Your task to perform on an android device: set default search engine in the chrome app Image 0: 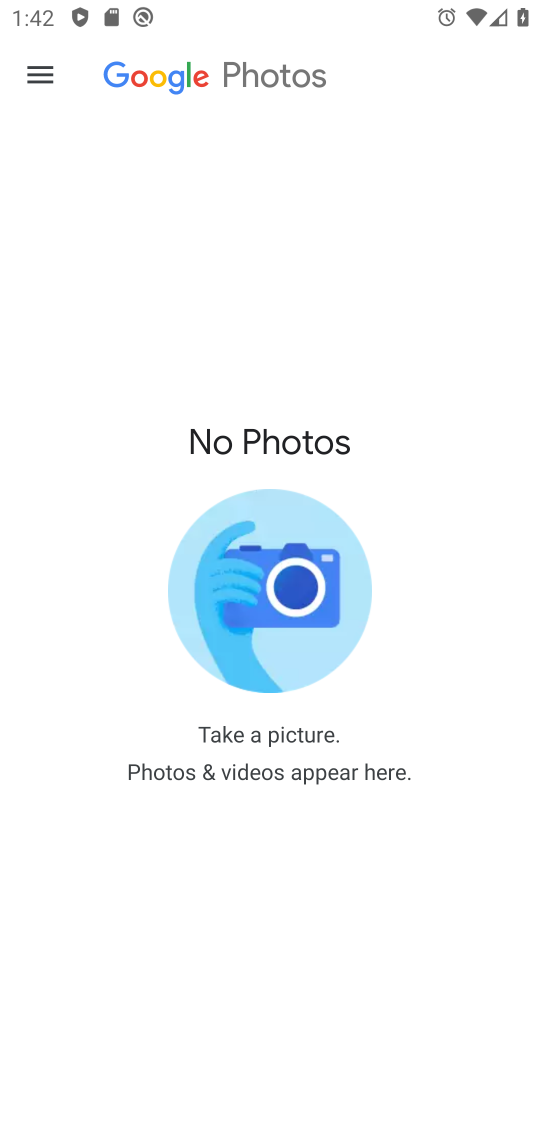
Step 0: drag from (298, 1045) to (344, 338)
Your task to perform on an android device: set default search engine in the chrome app Image 1: 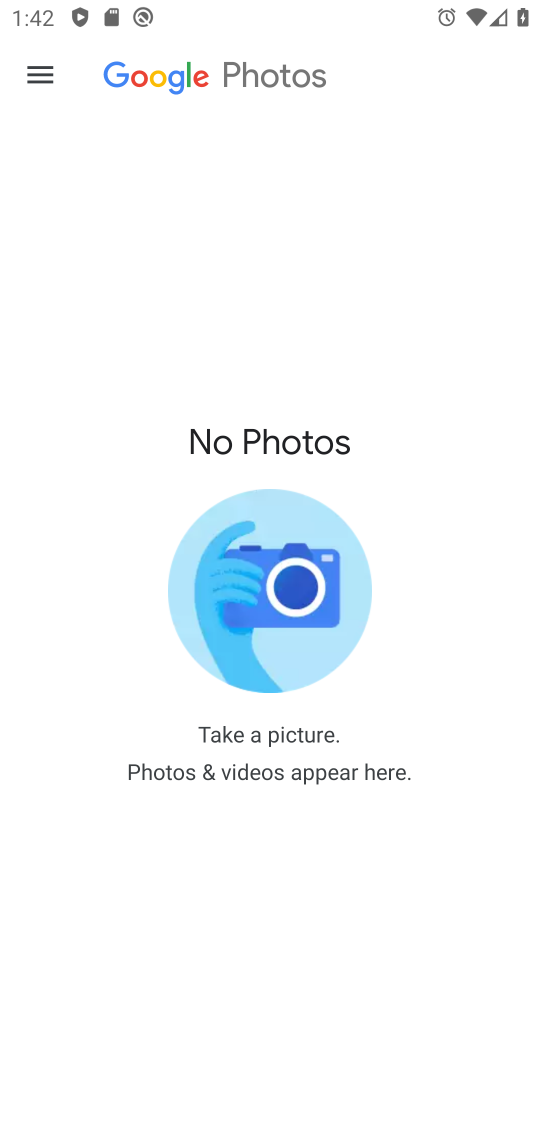
Step 1: drag from (312, 963) to (307, 350)
Your task to perform on an android device: set default search engine in the chrome app Image 2: 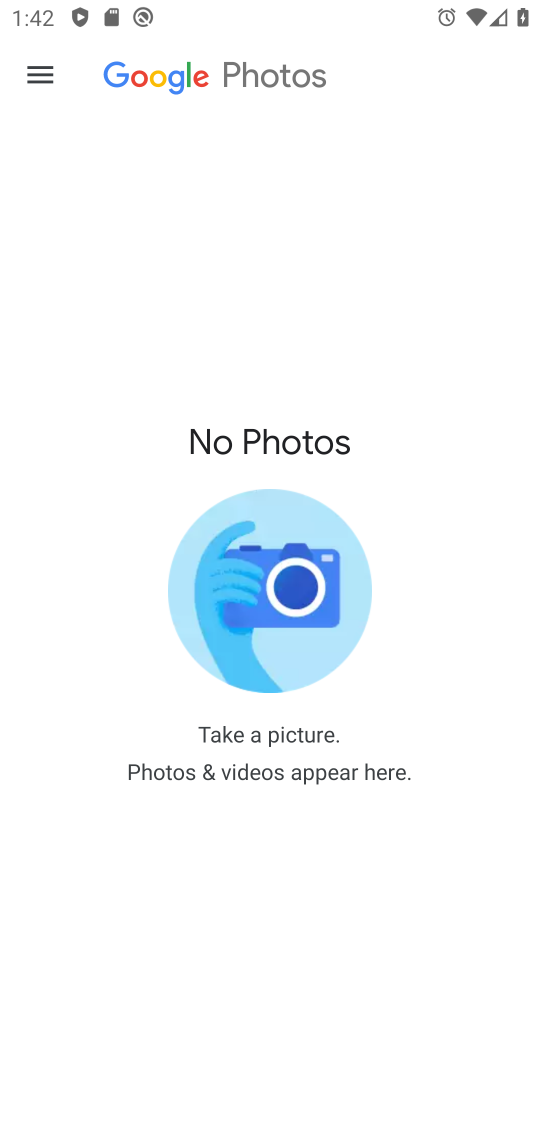
Step 2: press home button
Your task to perform on an android device: set default search engine in the chrome app Image 3: 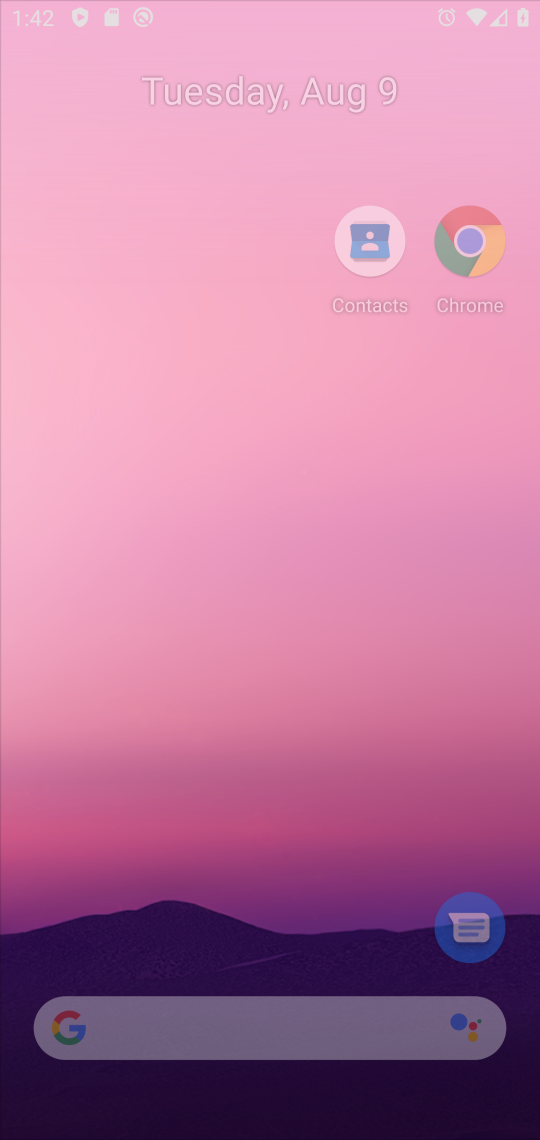
Step 3: drag from (227, 801) to (365, 271)
Your task to perform on an android device: set default search engine in the chrome app Image 4: 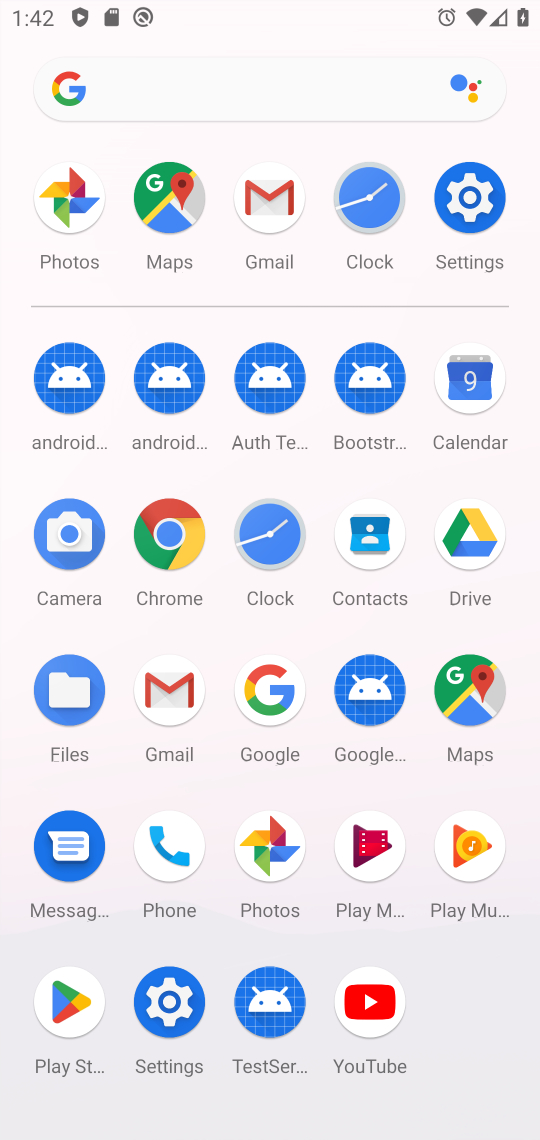
Step 4: drag from (334, 507) to (347, 340)
Your task to perform on an android device: set default search engine in the chrome app Image 5: 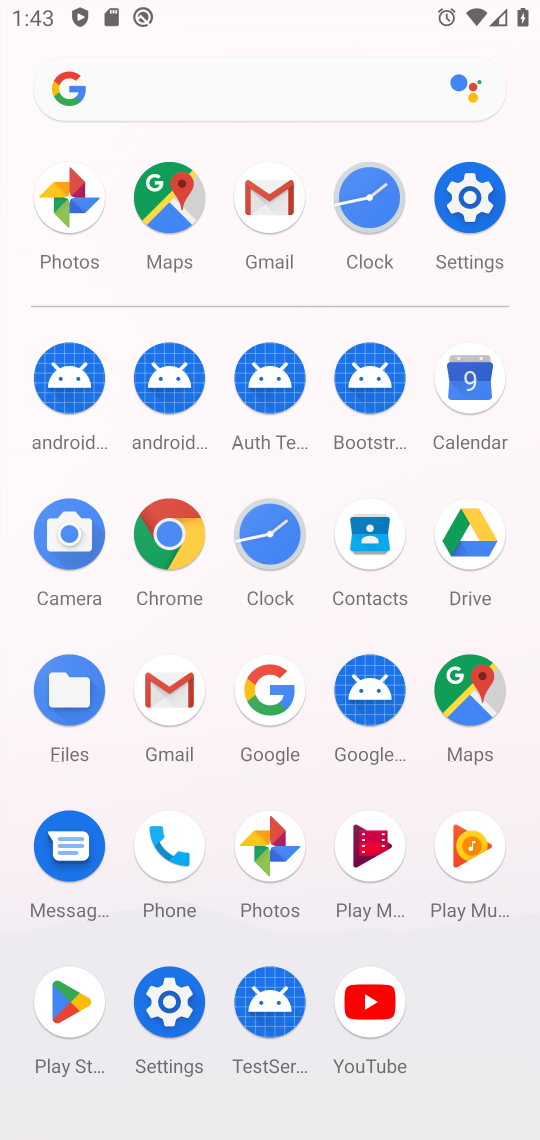
Step 5: drag from (302, 865) to (372, 376)
Your task to perform on an android device: set default search engine in the chrome app Image 6: 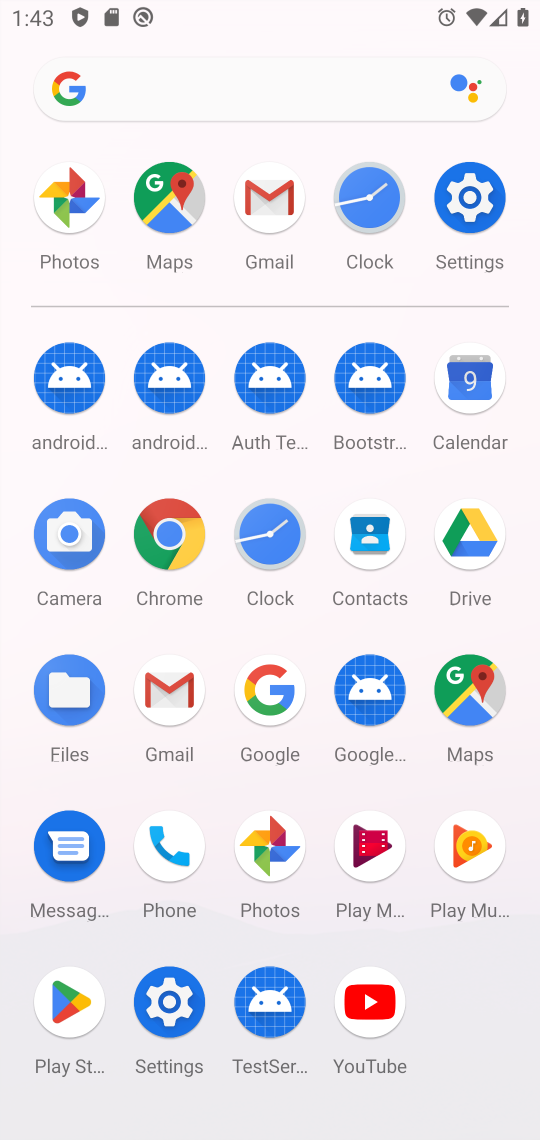
Step 6: click (148, 505)
Your task to perform on an android device: set default search engine in the chrome app Image 7: 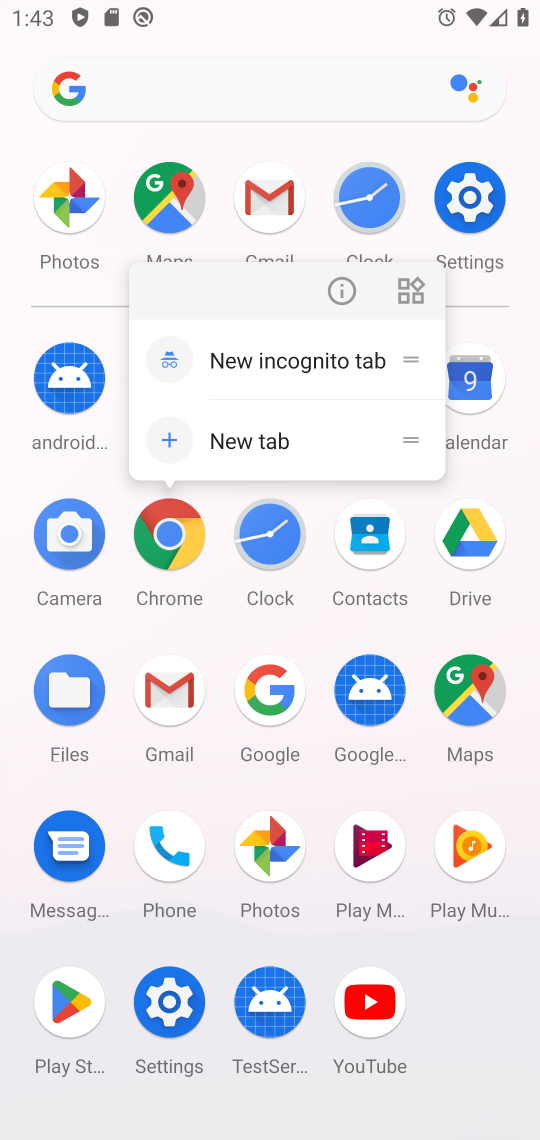
Step 7: click (340, 288)
Your task to perform on an android device: set default search engine in the chrome app Image 8: 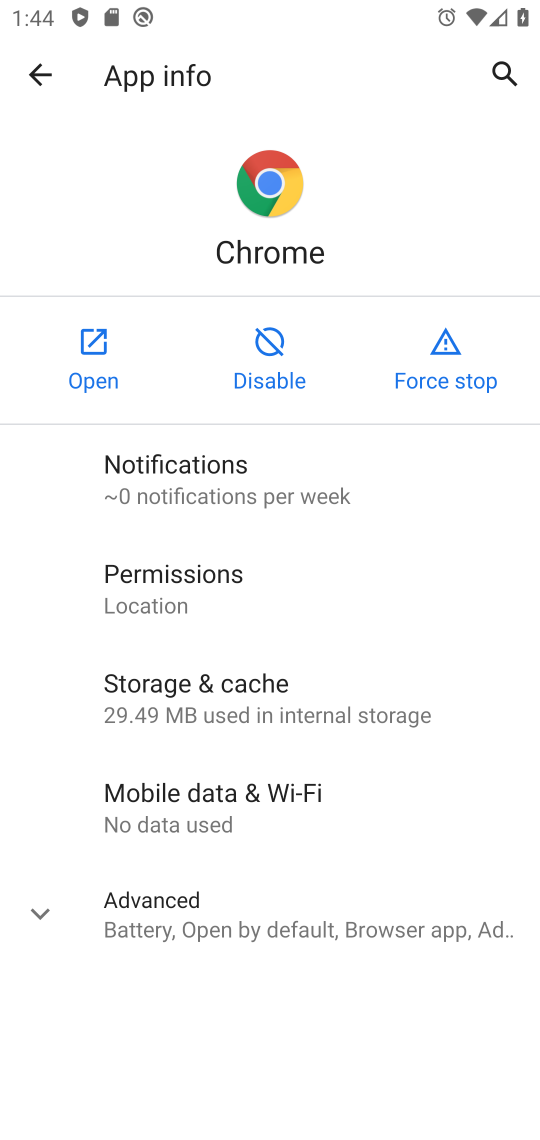
Step 8: click (90, 365)
Your task to perform on an android device: set default search engine in the chrome app Image 9: 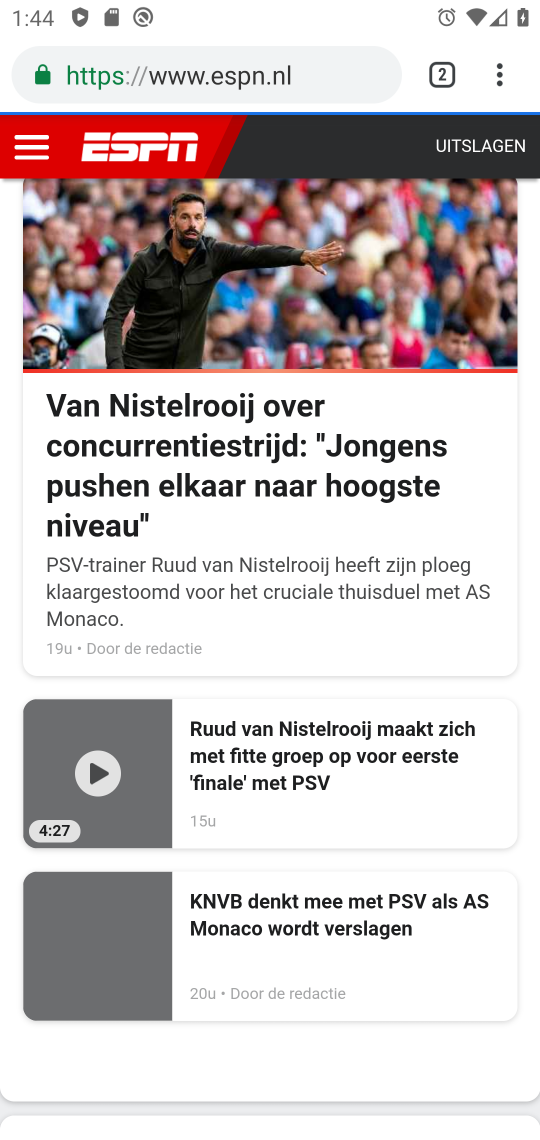
Step 9: drag from (494, 63) to (265, 895)
Your task to perform on an android device: set default search engine in the chrome app Image 10: 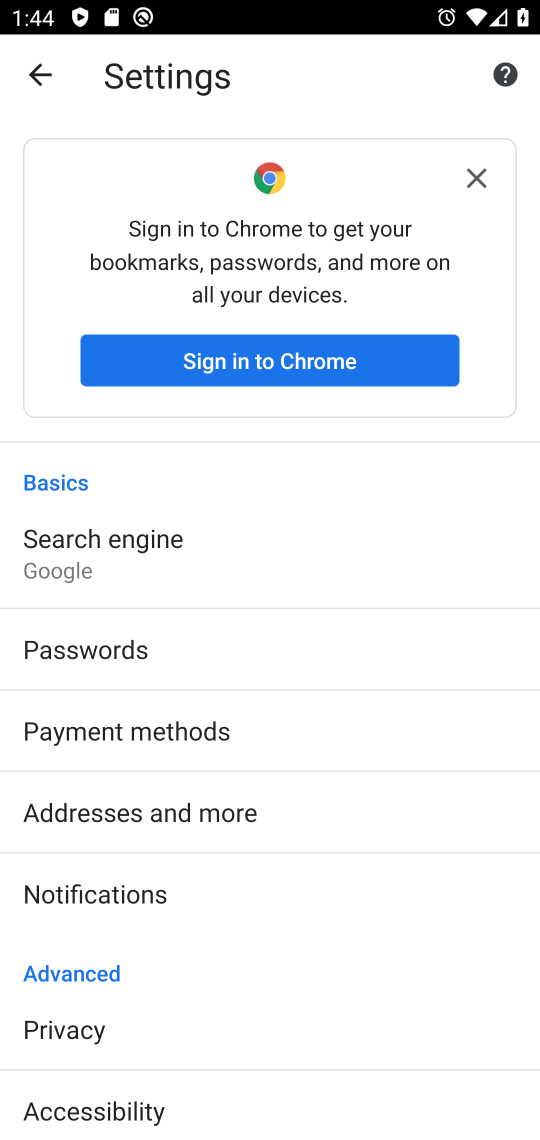
Step 10: click (207, 557)
Your task to perform on an android device: set default search engine in the chrome app Image 11: 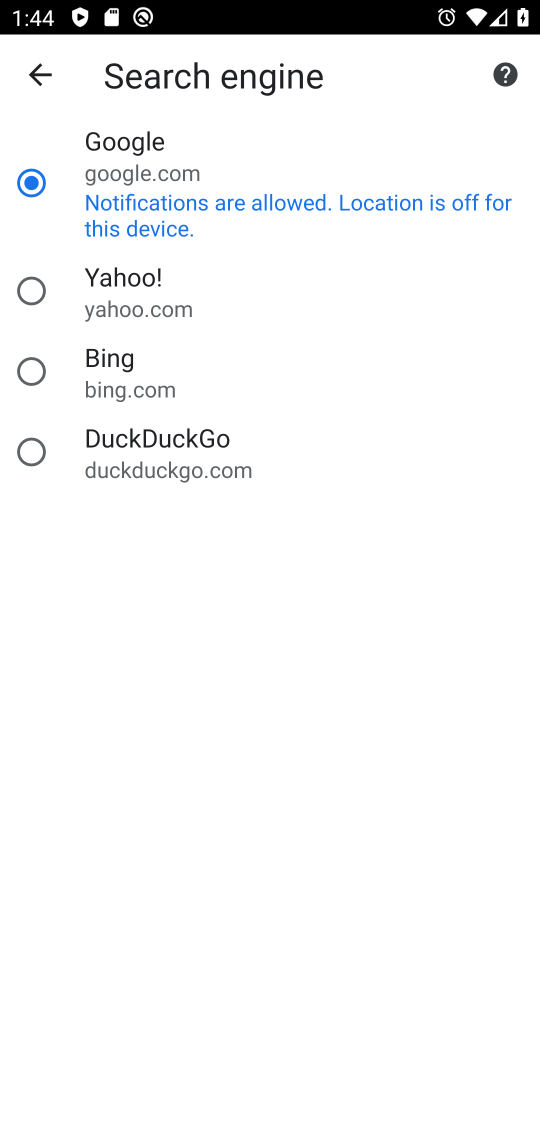
Step 11: task complete